Your task to perform on an android device: Open sound settings Image 0: 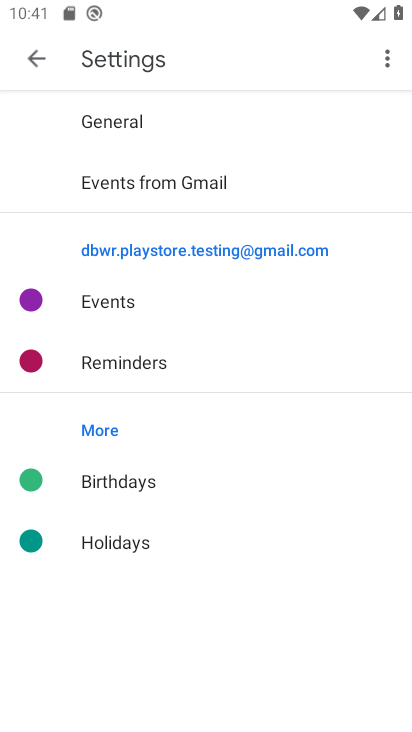
Step 0: press home button
Your task to perform on an android device: Open sound settings Image 1: 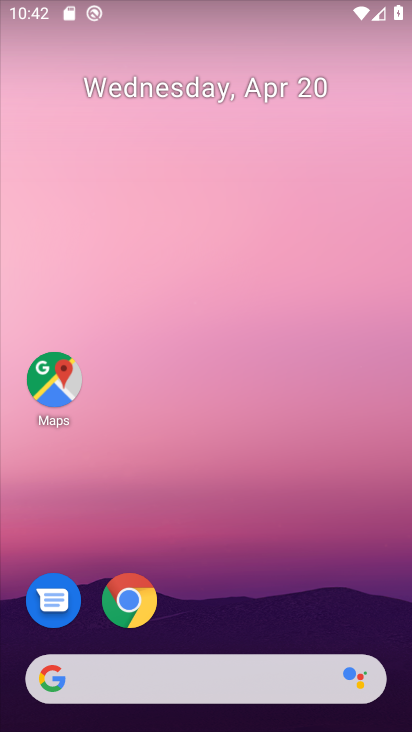
Step 1: drag from (286, 434) to (305, 77)
Your task to perform on an android device: Open sound settings Image 2: 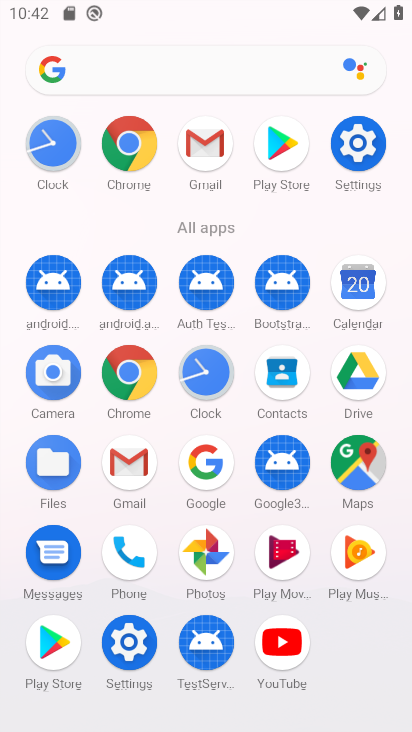
Step 2: click (356, 141)
Your task to perform on an android device: Open sound settings Image 3: 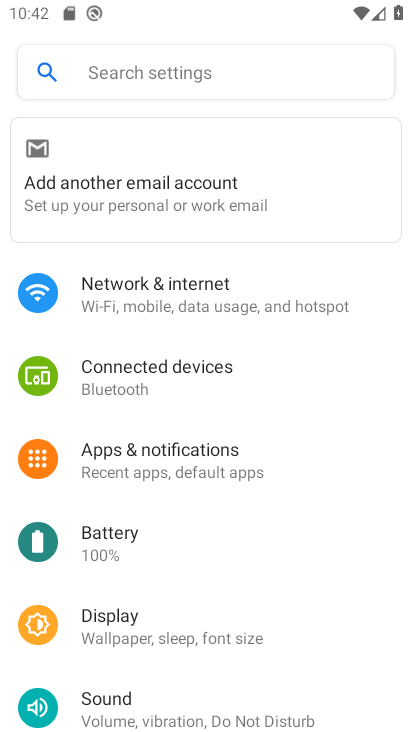
Step 3: click (202, 703)
Your task to perform on an android device: Open sound settings Image 4: 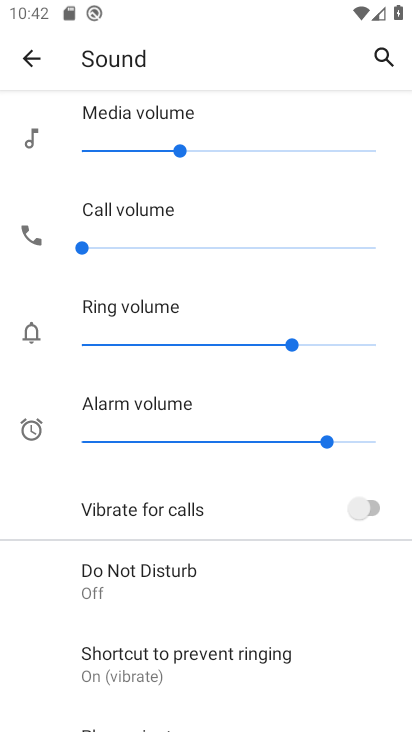
Step 4: task complete